Your task to perform on an android device: search for starred emails in the gmail app Image 0: 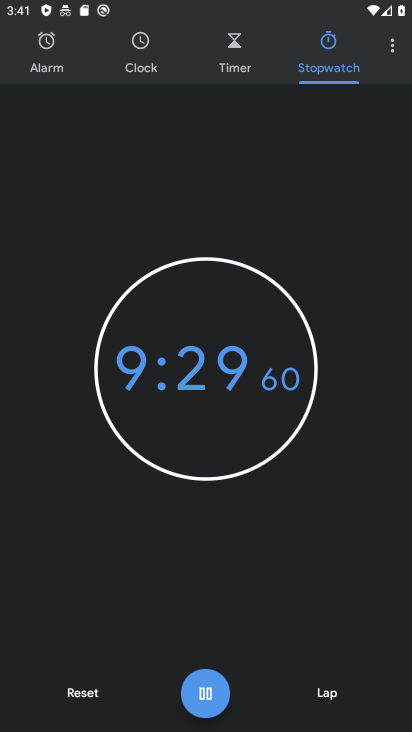
Step 0: press home button
Your task to perform on an android device: search for starred emails in the gmail app Image 1: 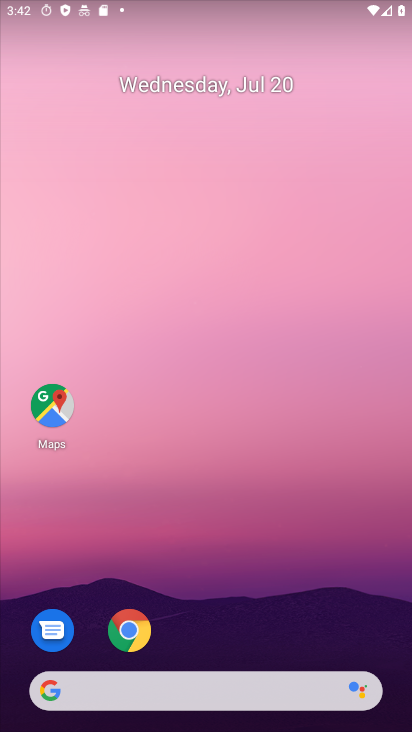
Step 1: drag from (222, 640) to (145, 0)
Your task to perform on an android device: search for starred emails in the gmail app Image 2: 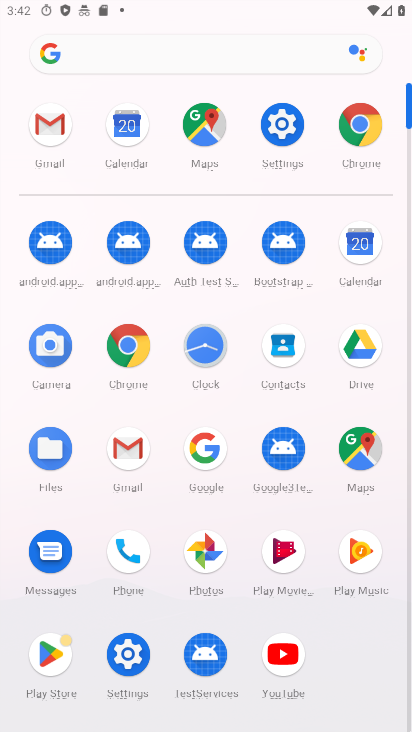
Step 2: click (36, 131)
Your task to perform on an android device: search for starred emails in the gmail app Image 3: 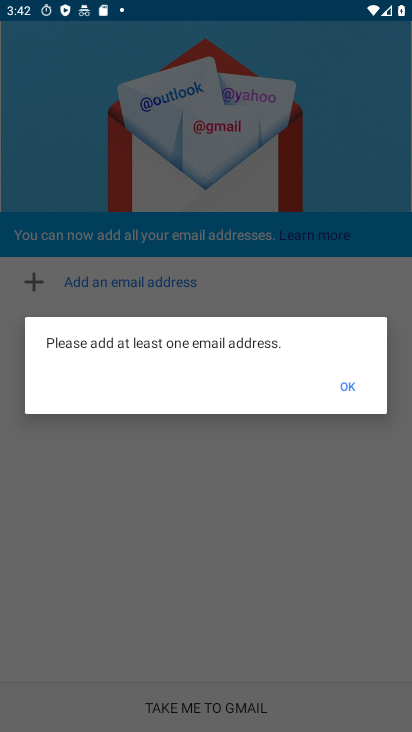
Step 3: click (346, 384)
Your task to perform on an android device: search for starred emails in the gmail app Image 4: 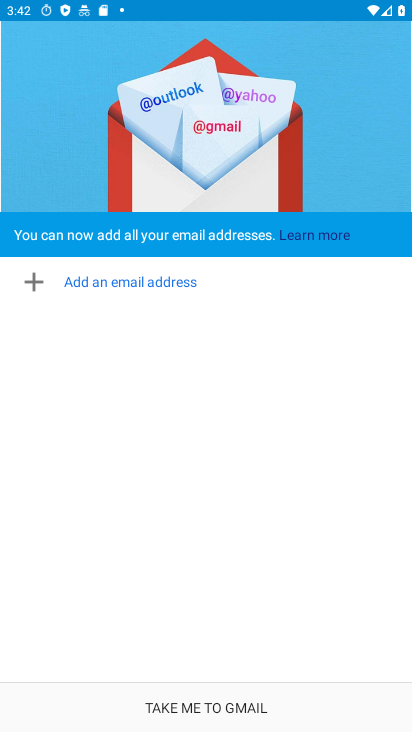
Step 4: click (223, 705)
Your task to perform on an android device: search for starred emails in the gmail app Image 5: 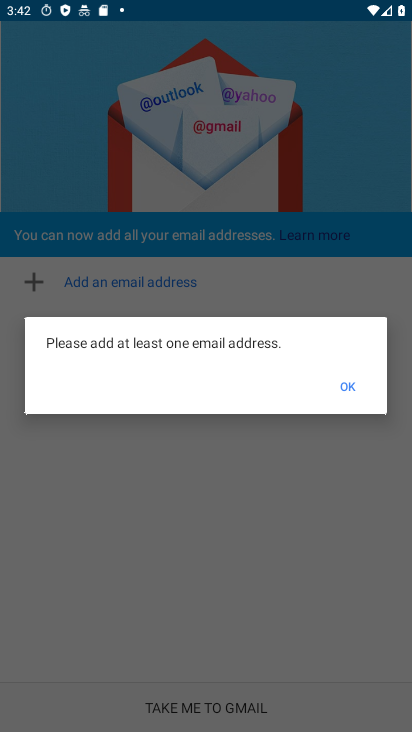
Step 5: click (347, 380)
Your task to perform on an android device: search for starred emails in the gmail app Image 6: 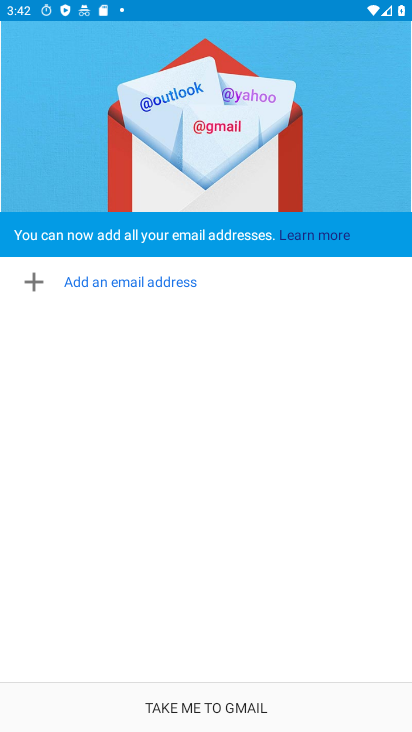
Step 6: task complete